Your task to perform on an android device: Open wifi settings Image 0: 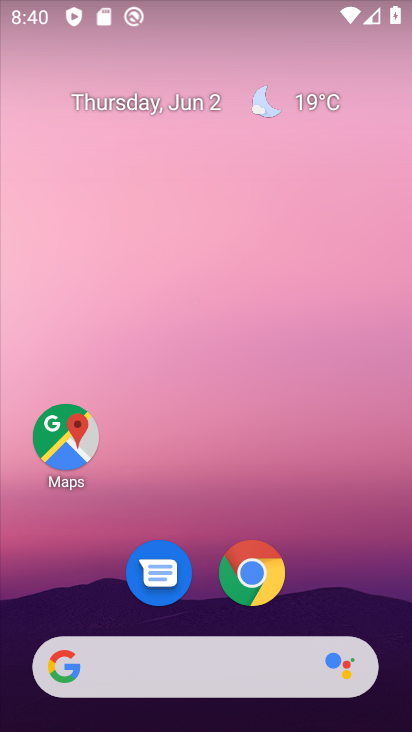
Step 0: drag from (201, 602) to (185, 5)
Your task to perform on an android device: Open wifi settings Image 1: 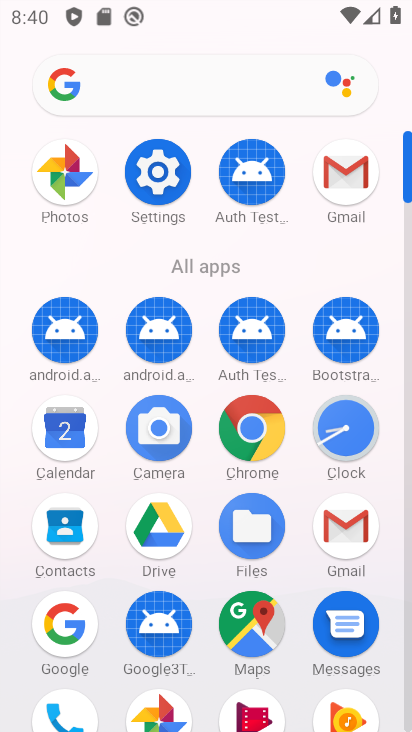
Step 1: click (159, 164)
Your task to perform on an android device: Open wifi settings Image 2: 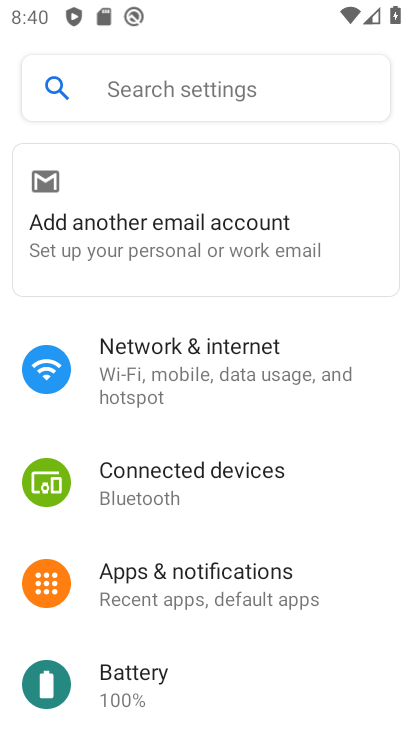
Step 2: click (205, 382)
Your task to perform on an android device: Open wifi settings Image 3: 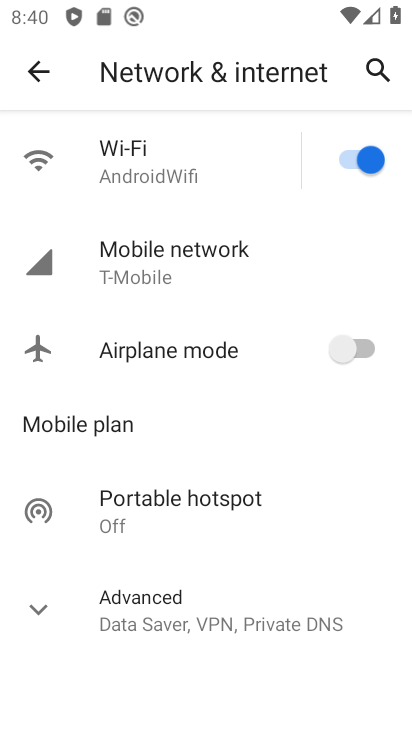
Step 3: click (142, 166)
Your task to perform on an android device: Open wifi settings Image 4: 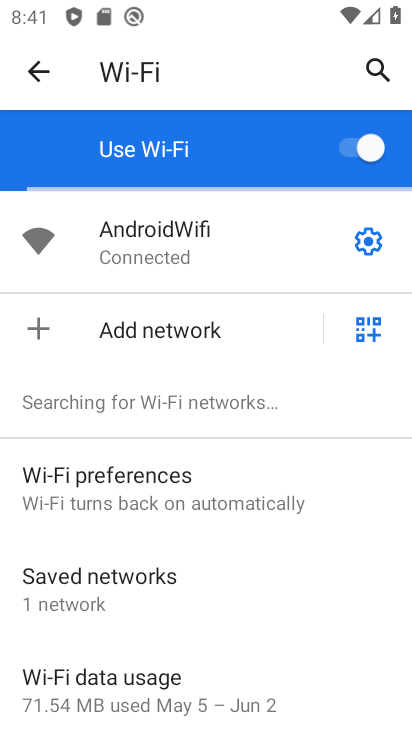
Step 4: task complete